Your task to perform on an android device: Open Google Image 0: 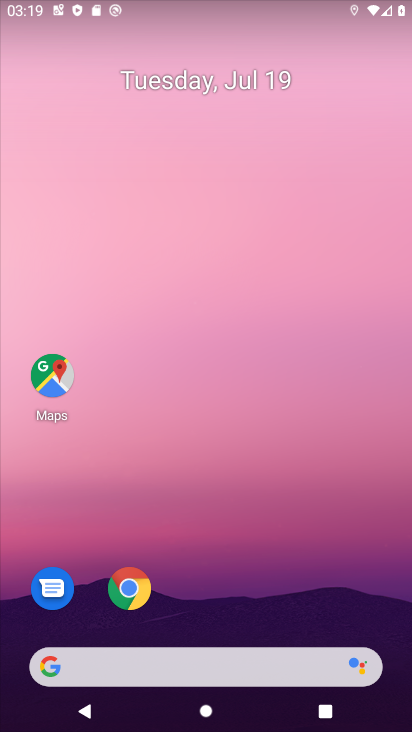
Step 0: click (182, 662)
Your task to perform on an android device: Open Google Image 1: 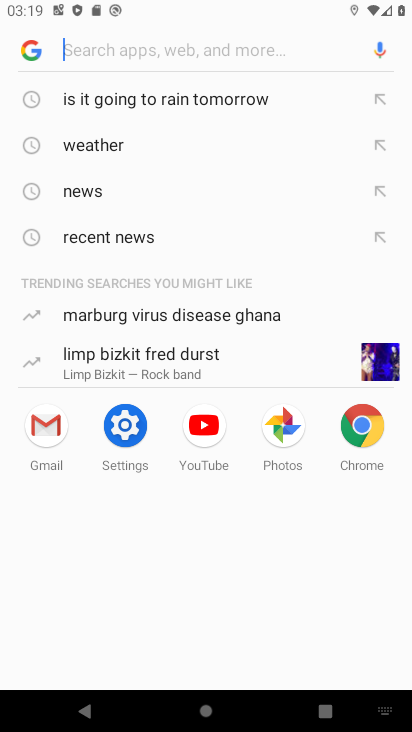
Step 1: task complete